Your task to perform on an android device: Search for vegetarian restaurants on Maps Image 0: 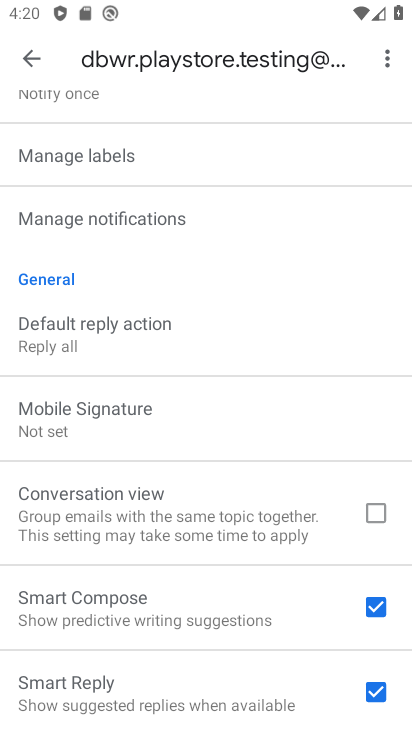
Step 0: press home button
Your task to perform on an android device: Search for vegetarian restaurants on Maps Image 1: 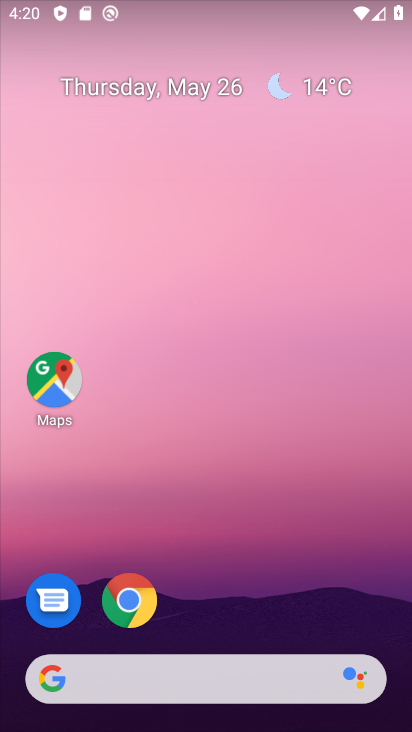
Step 1: click (58, 376)
Your task to perform on an android device: Search for vegetarian restaurants on Maps Image 2: 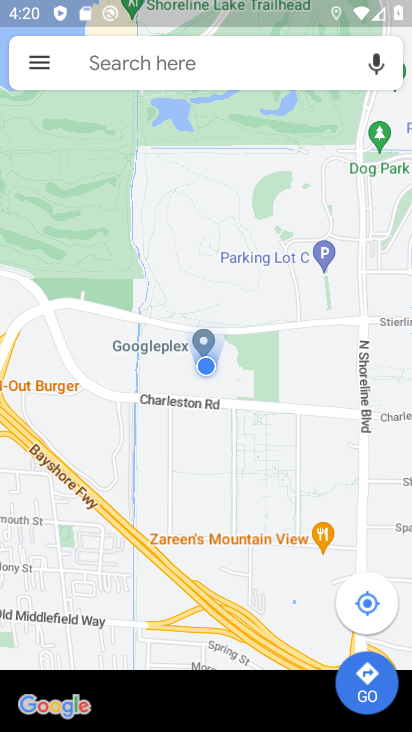
Step 2: click (174, 64)
Your task to perform on an android device: Search for vegetarian restaurants on Maps Image 3: 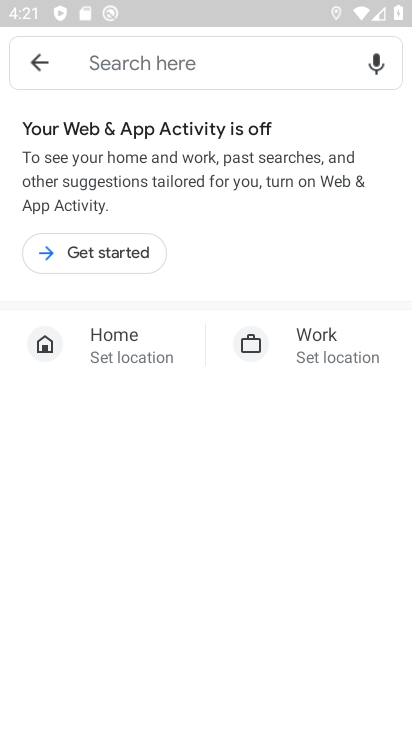
Step 3: click (174, 64)
Your task to perform on an android device: Search for vegetarian restaurants on Maps Image 4: 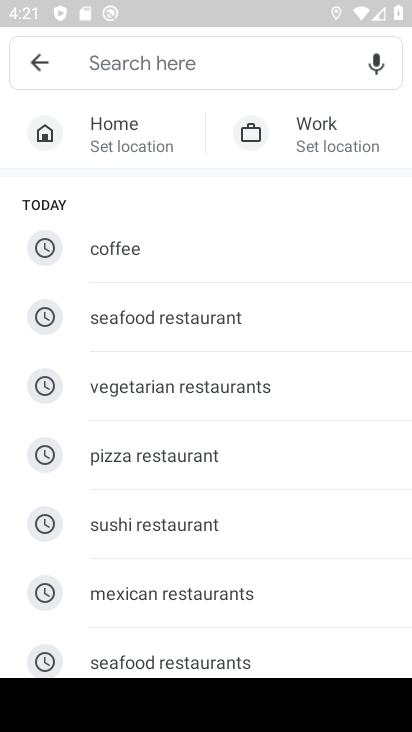
Step 4: type "vegetarian"
Your task to perform on an android device: Search for vegetarian restaurants on Maps Image 5: 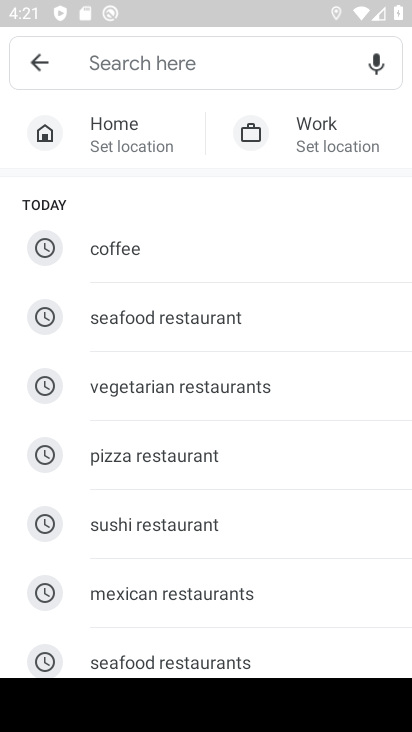
Step 5: click (213, 398)
Your task to perform on an android device: Search for vegetarian restaurants on Maps Image 6: 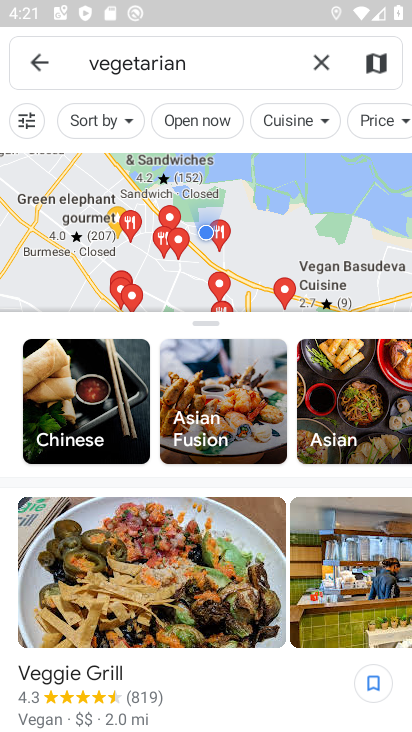
Step 6: task complete